Your task to perform on an android device: change the clock display to digital Image 0: 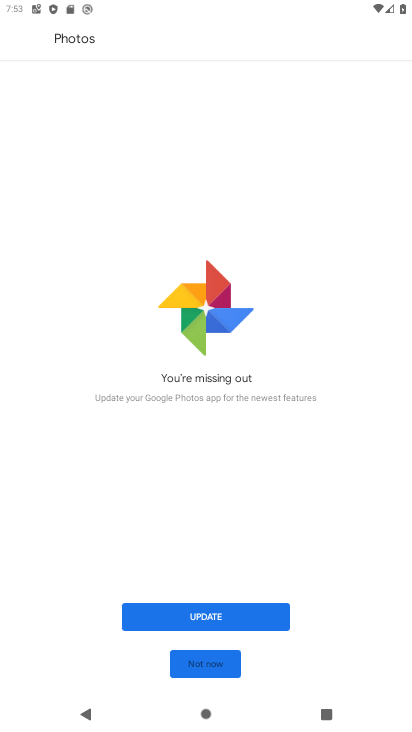
Step 0: press home button
Your task to perform on an android device: change the clock display to digital Image 1: 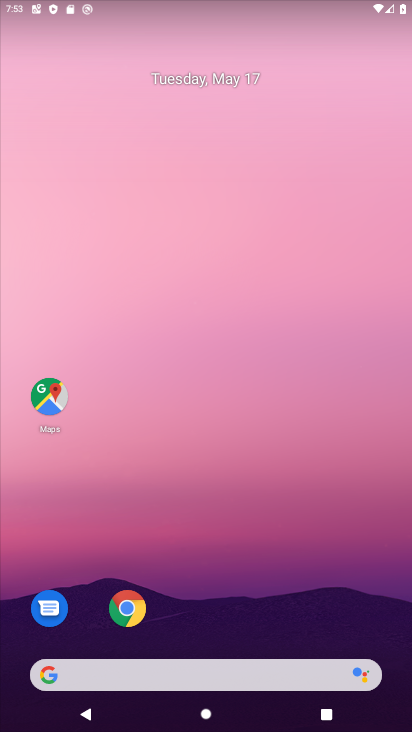
Step 1: drag from (231, 614) to (199, 151)
Your task to perform on an android device: change the clock display to digital Image 2: 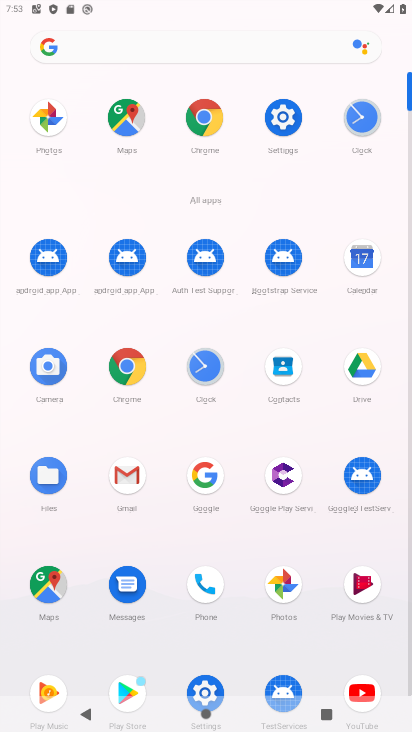
Step 2: click (372, 119)
Your task to perform on an android device: change the clock display to digital Image 3: 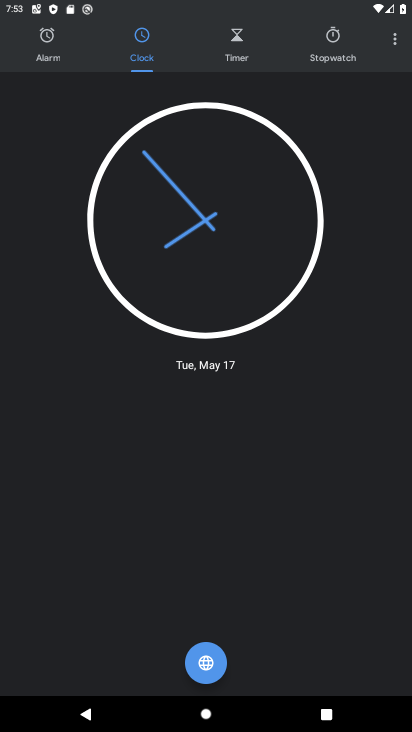
Step 3: click (386, 36)
Your task to perform on an android device: change the clock display to digital Image 4: 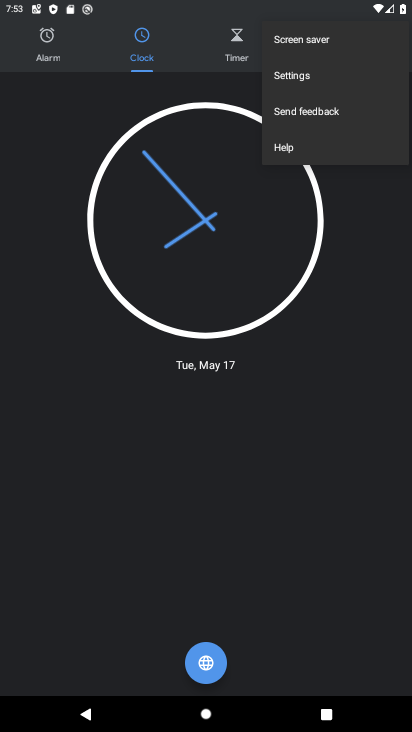
Step 4: click (328, 65)
Your task to perform on an android device: change the clock display to digital Image 5: 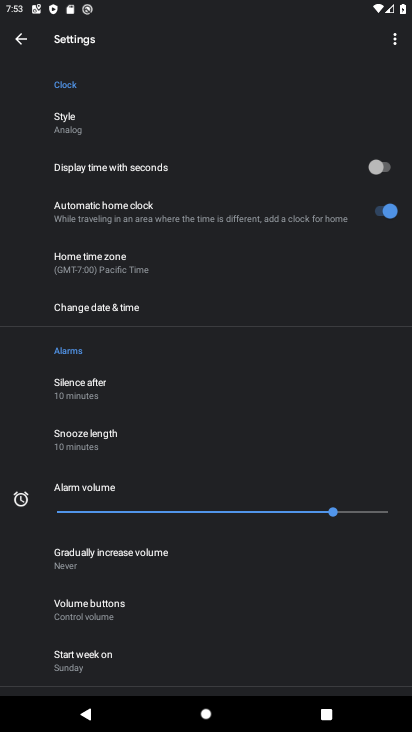
Step 5: click (122, 110)
Your task to perform on an android device: change the clock display to digital Image 6: 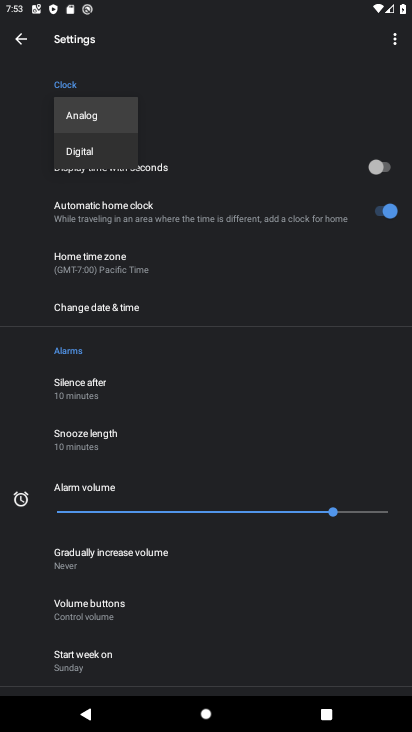
Step 6: click (82, 161)
Your task to perform on an android device: change the clock display to digital Image 7: 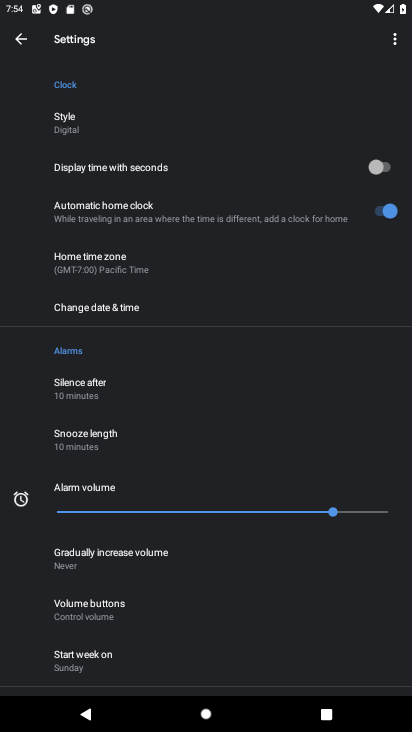
Step 7: task complete